Your task to perform on an android device: Open display settings Image 0: 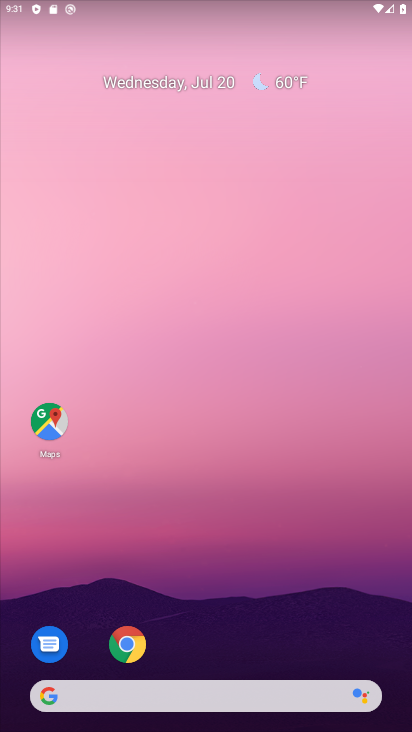
Step 0: drag from (300, 655) to (240, 195)
Your task to perform on an android device: Open display settings Image 1: 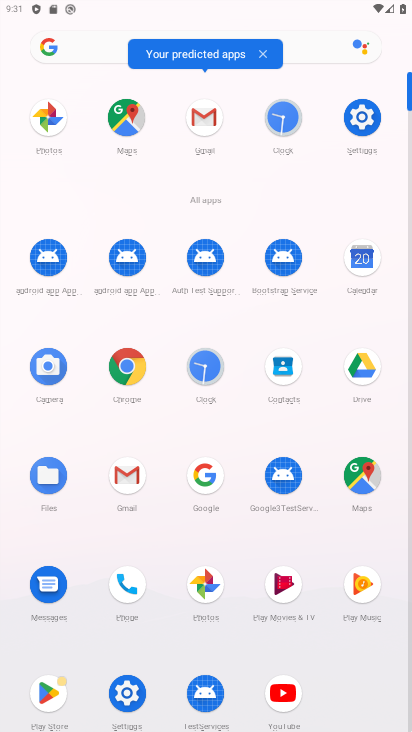
Step 1: click (363, 125)
Your task to perform on an android device: Open display settings Image 2: 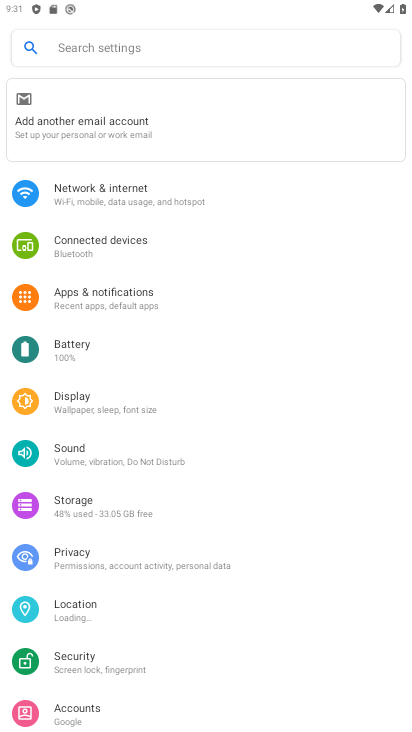
Step 2: click (81, 405)
Your task to perform on an android device: Open display settings Image 3: 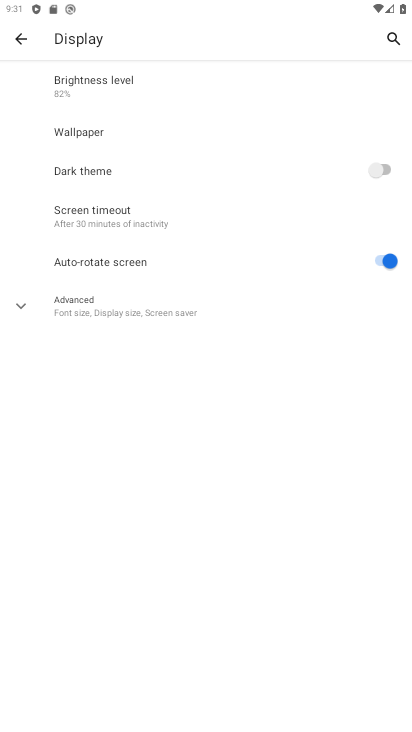
Step 3: click (85, 303)
Your task to perform on an android device: Open display settings Image 4: 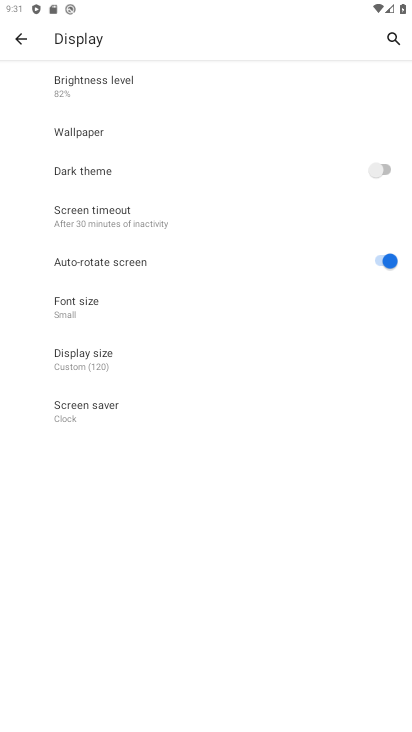
Step 4: task complete